Your task to perform on an android device: Open internet settings Image 0: 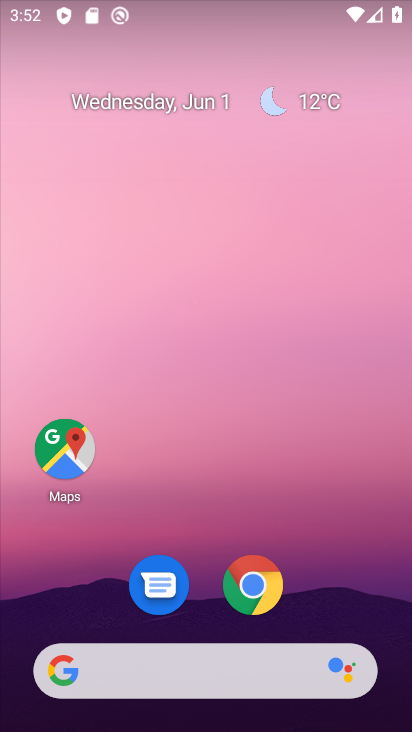
Step 0: drag from (231, 526) to (225, 28)
Your task to perform on an android device: Open internet settings Image 1: 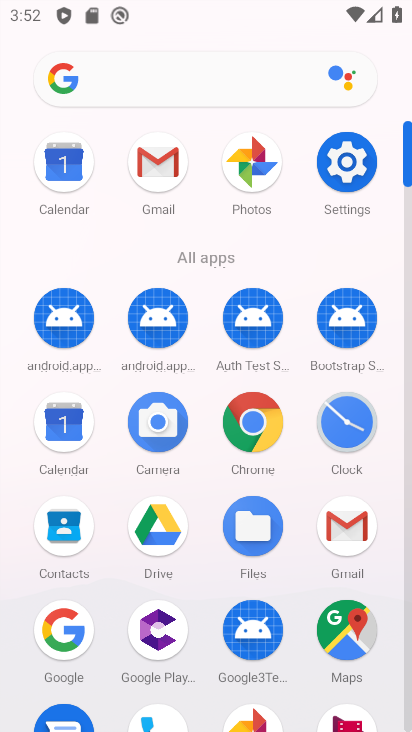
Step 1: click (335, 156)
Your task to perform on an android device: Open internet settings Image 2: 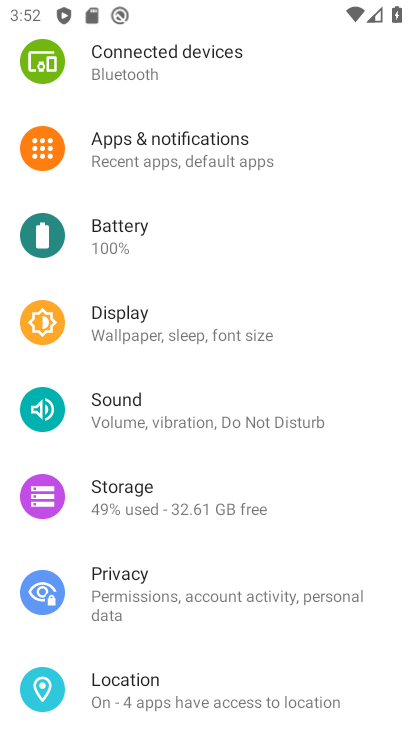
Step 2: drag from (224, 231) to (201, 551)
Your task to perform on an android device: Open internet settings Image 3: 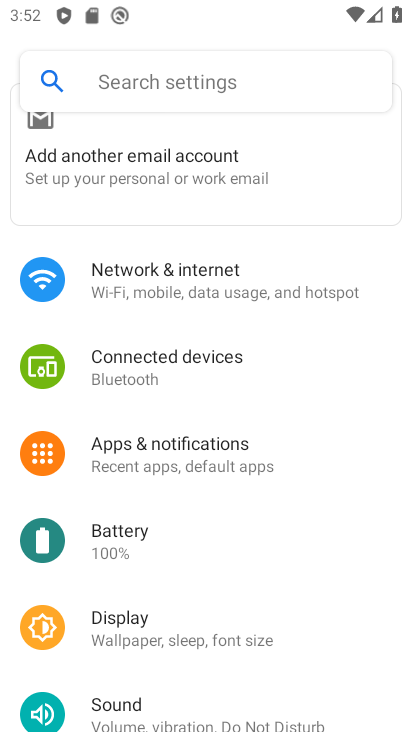
Step 3: click (263, 286)
Your task to perform on an android device: Open internet settings Image 4: 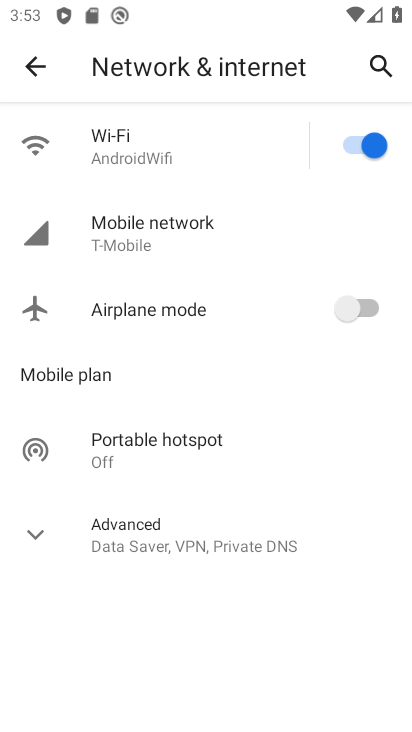
Step 4: task complete